Your task to perform on an android device: open app "Pluto TV - Live TV and Movies" (install if not already installed), go to login, and select forgot password Image 0: 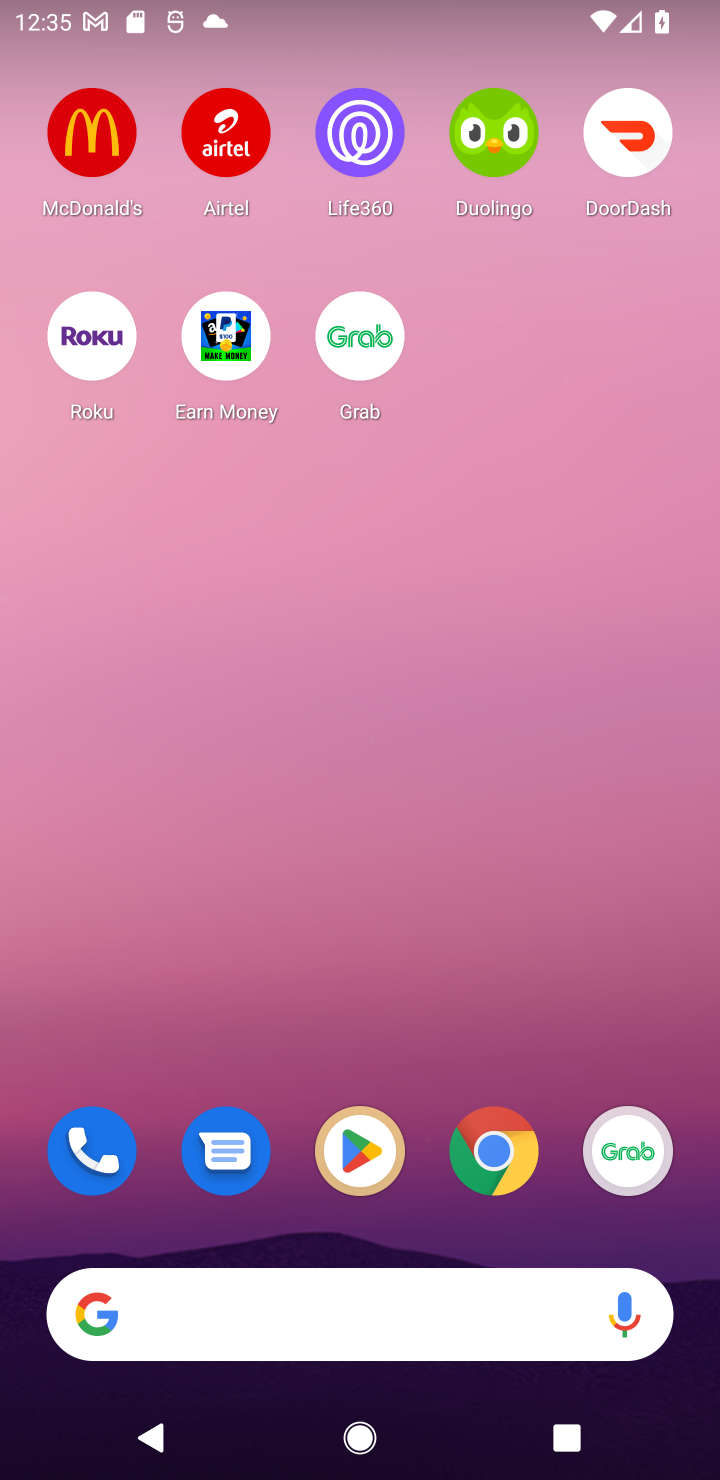
Step 0: press home button
Your task to perform on an android device: open app "Pluto TV - Live TV and Movies" (install if not already installed), go to login, and select forgot password Image 1: 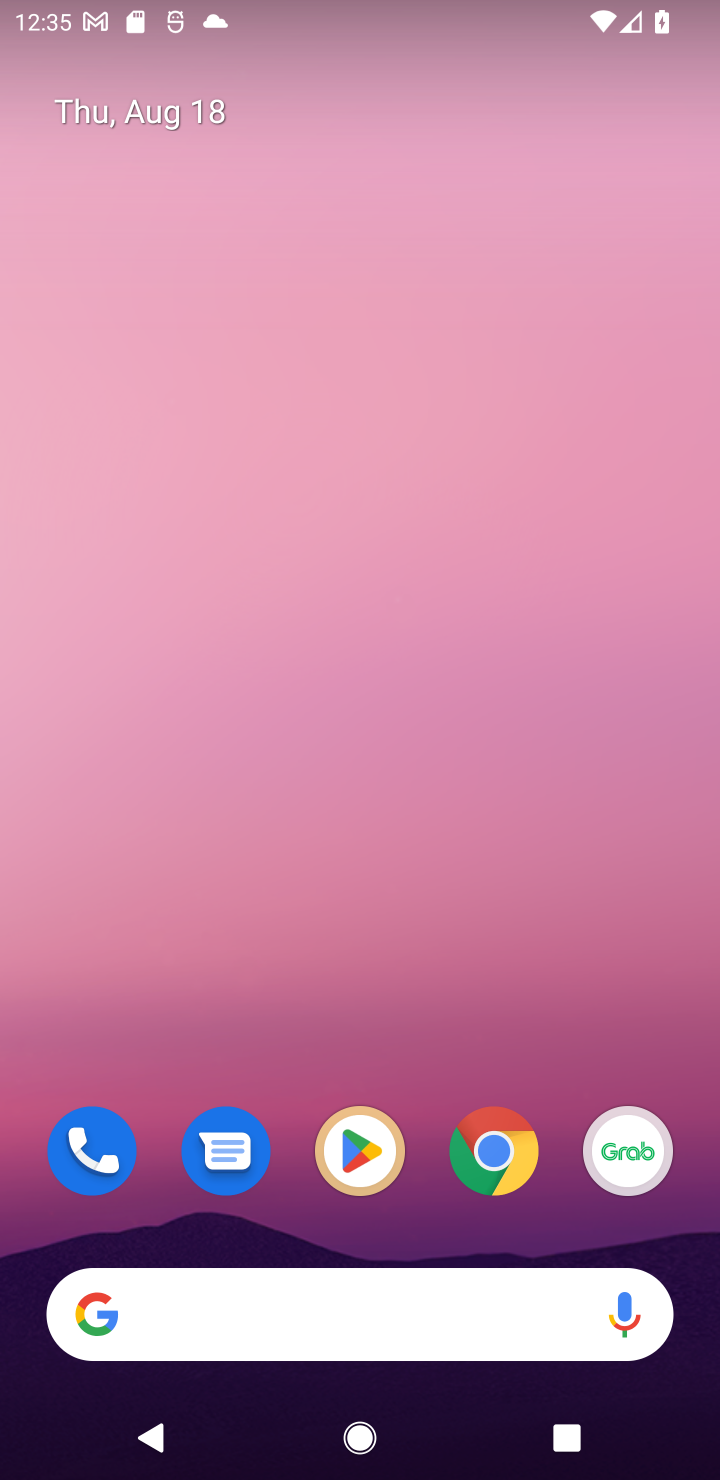
Step 1: click (352, 1152)
Your task to perform on an android device: open app "Pluto TV - Live TV and Movies" (install if not already installed), go to login, and select forgot password Image 2: 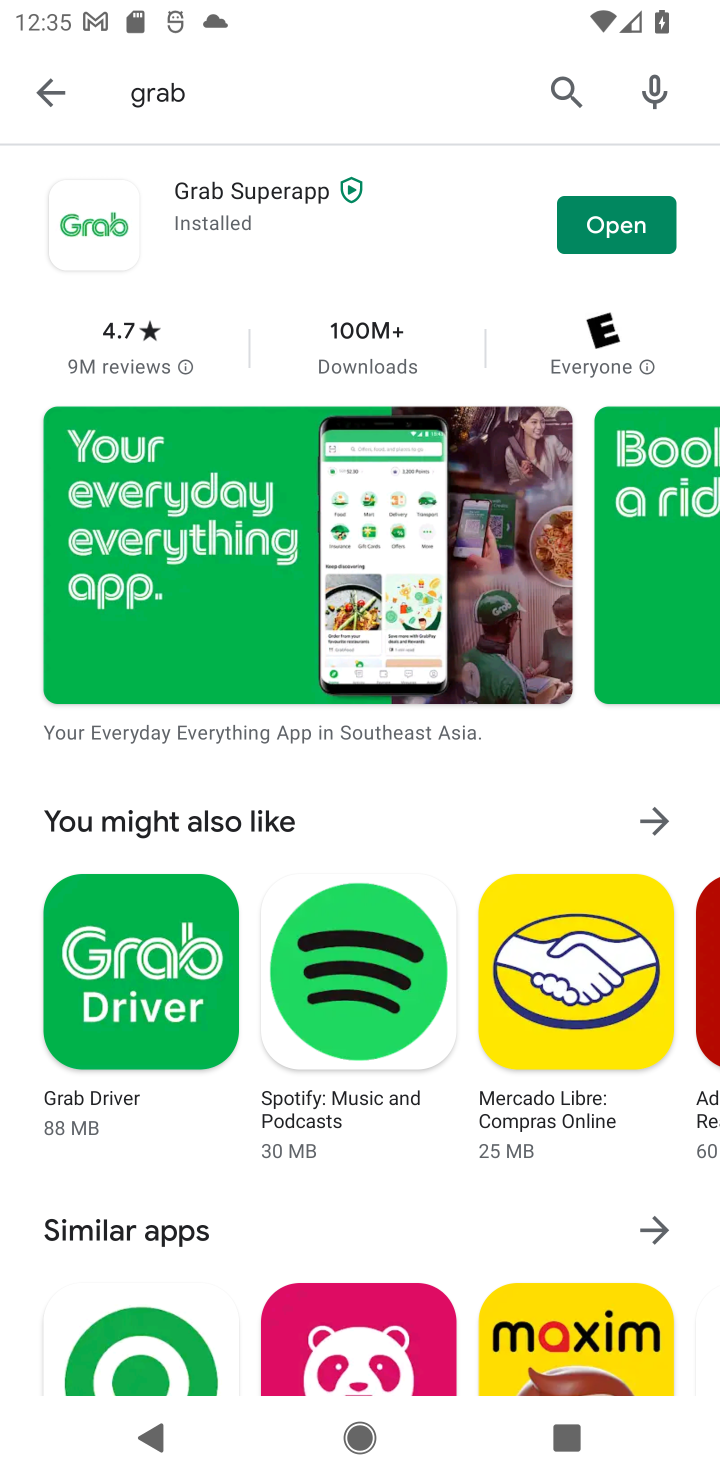
Step 2: click (43, 90)
Your task to perform on an android device: open app "Pluto TV - Live TV and Movies" (install if not already installed), go to login, and select forgot password Image 3: 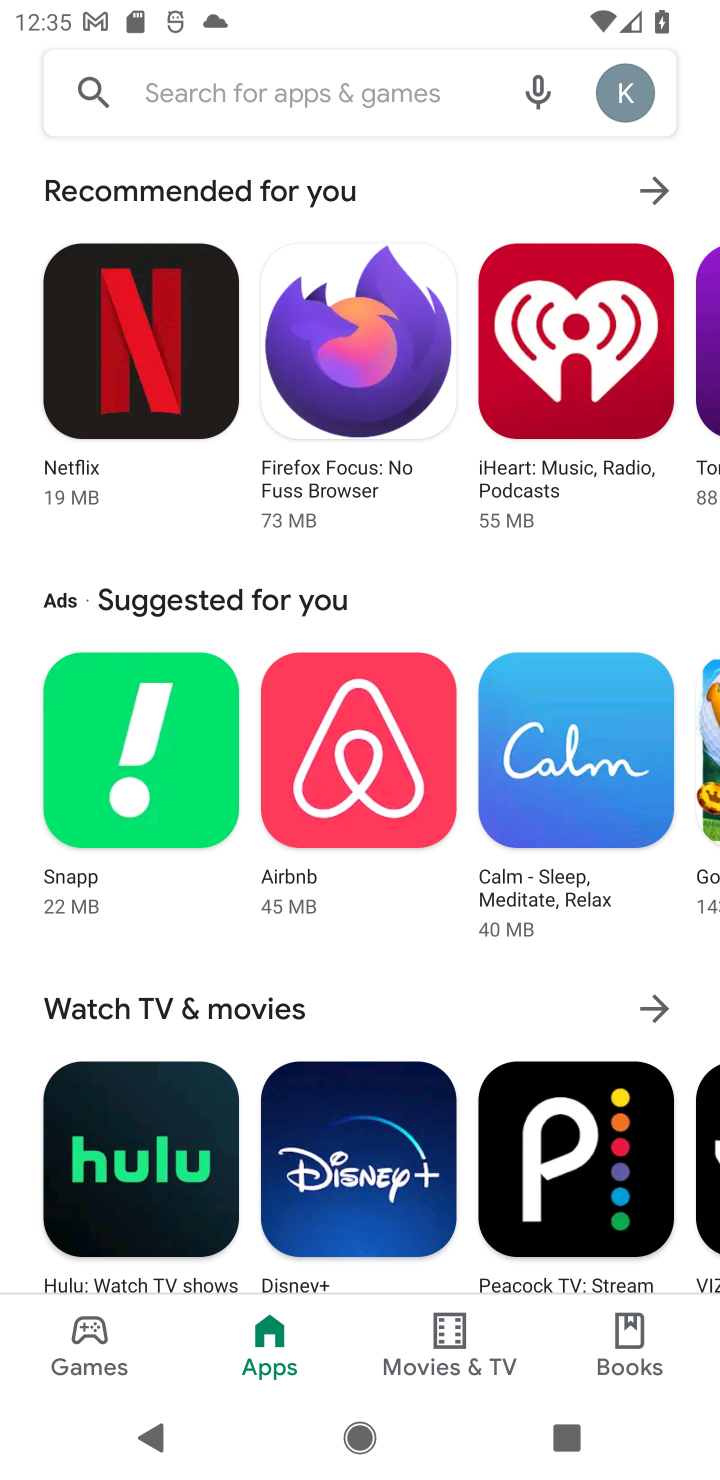
Step 3: click (217, 85)
Your task to perform on an android device: open app "Pluto TV - Live TV and Movies" (install if not already installed), go to login, and select forgot password Image 4: 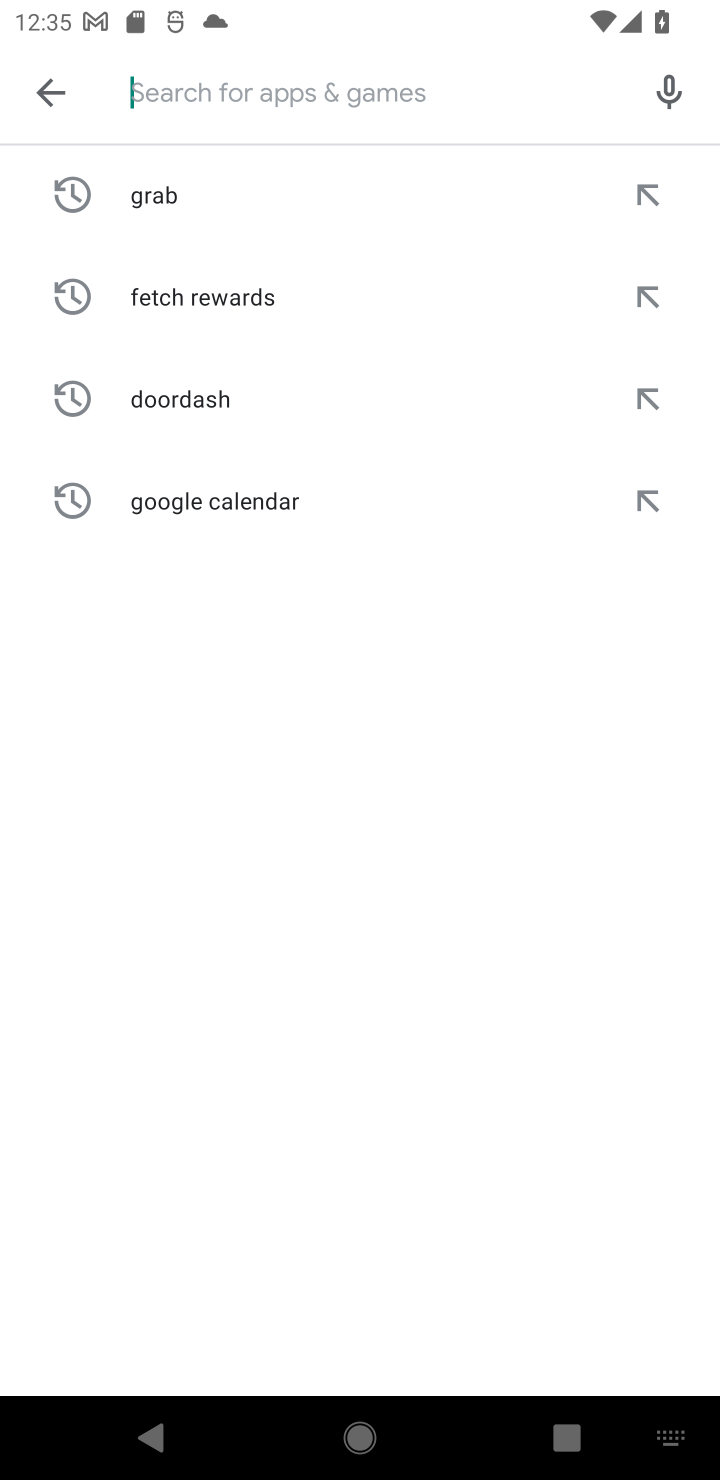
Step 4: type "Pluto TV - Live TV and Movies"
Your task to perform on an android device: open app "Pluto TV - Live TV and Movies" (install if not already installed), go to login, and select forgot password Image 5: 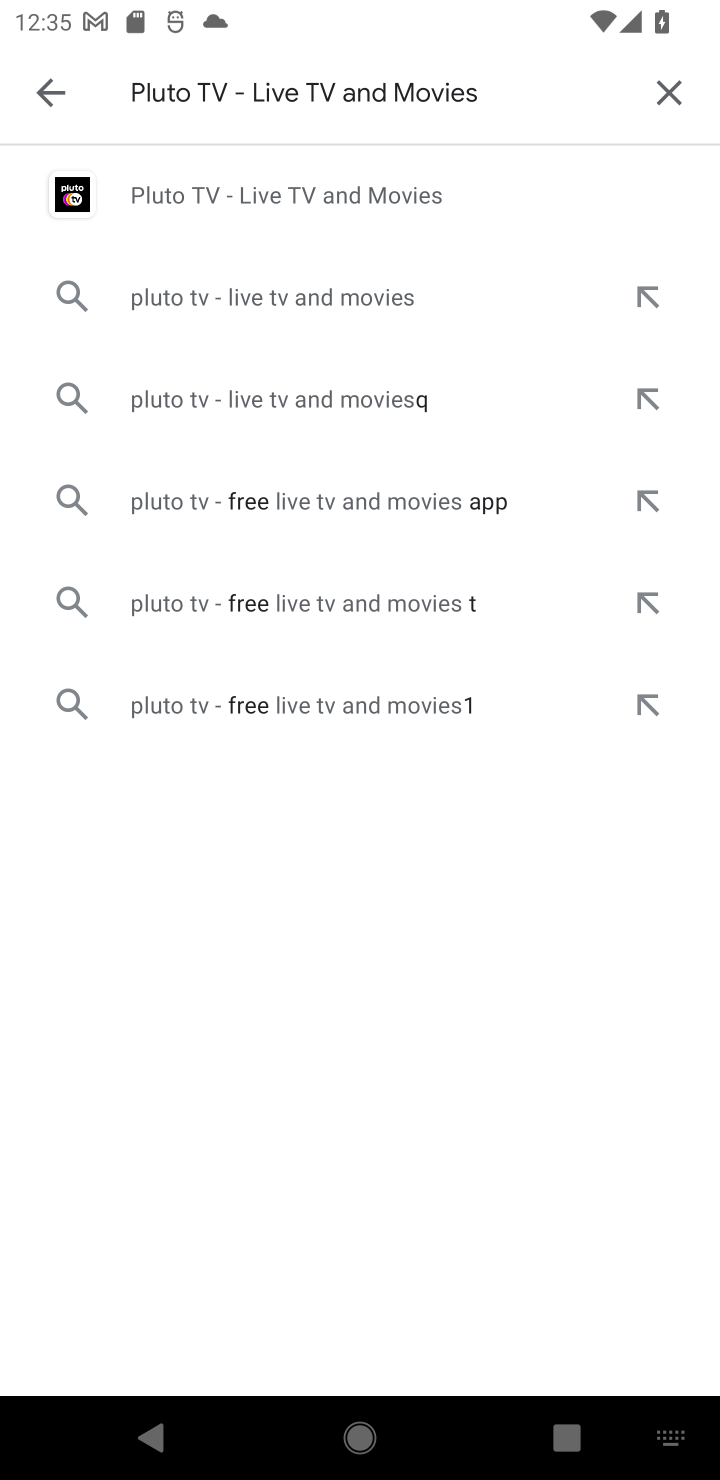
Step 5: click (370, 214)
Your task to perform on an android device: open app "Pluto TV - Live TV and Movies" (install if not already installed), go to login, and select forgot password Image 6: 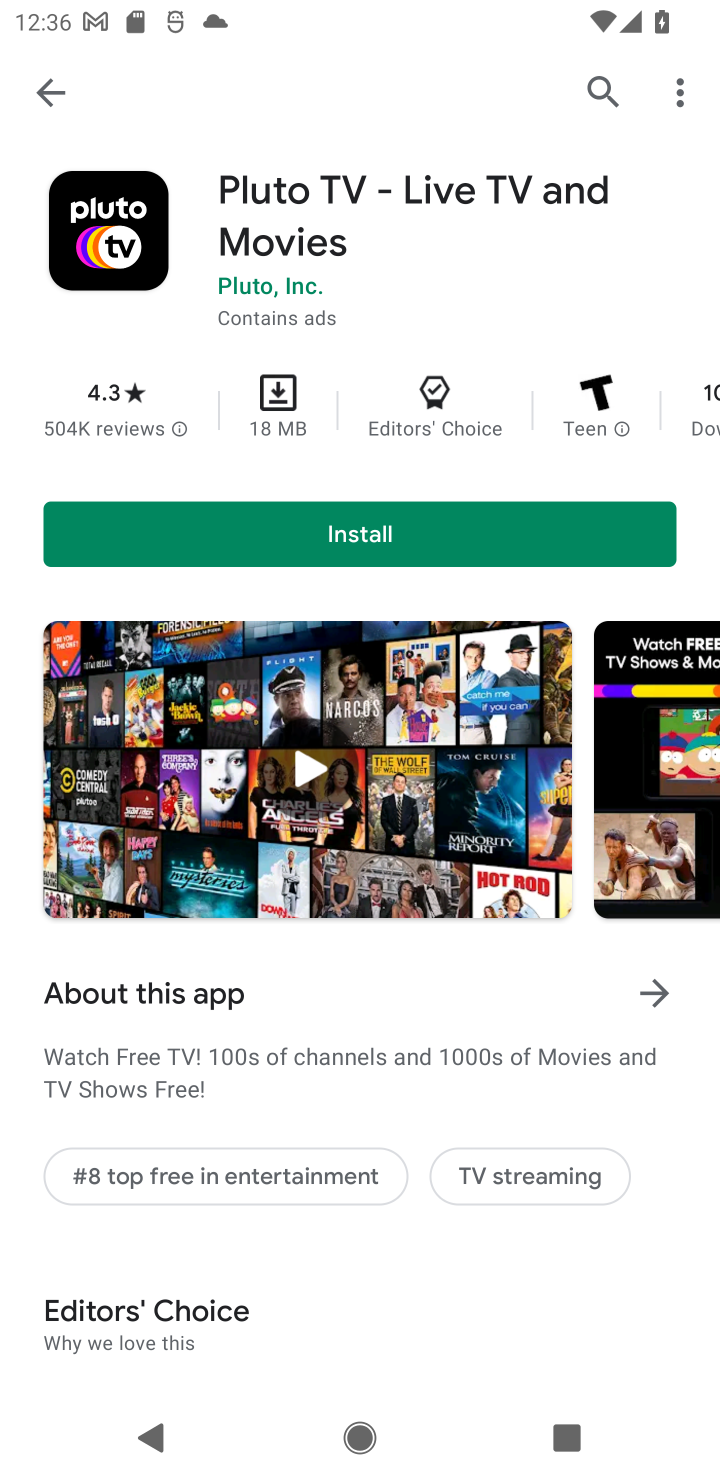
Step 6: click (340, 529)
Your task to perform on an android device: open app "Pluto TV - Live TV and Movies" (install if not already installed), go to login, and select forgot password Image 7: 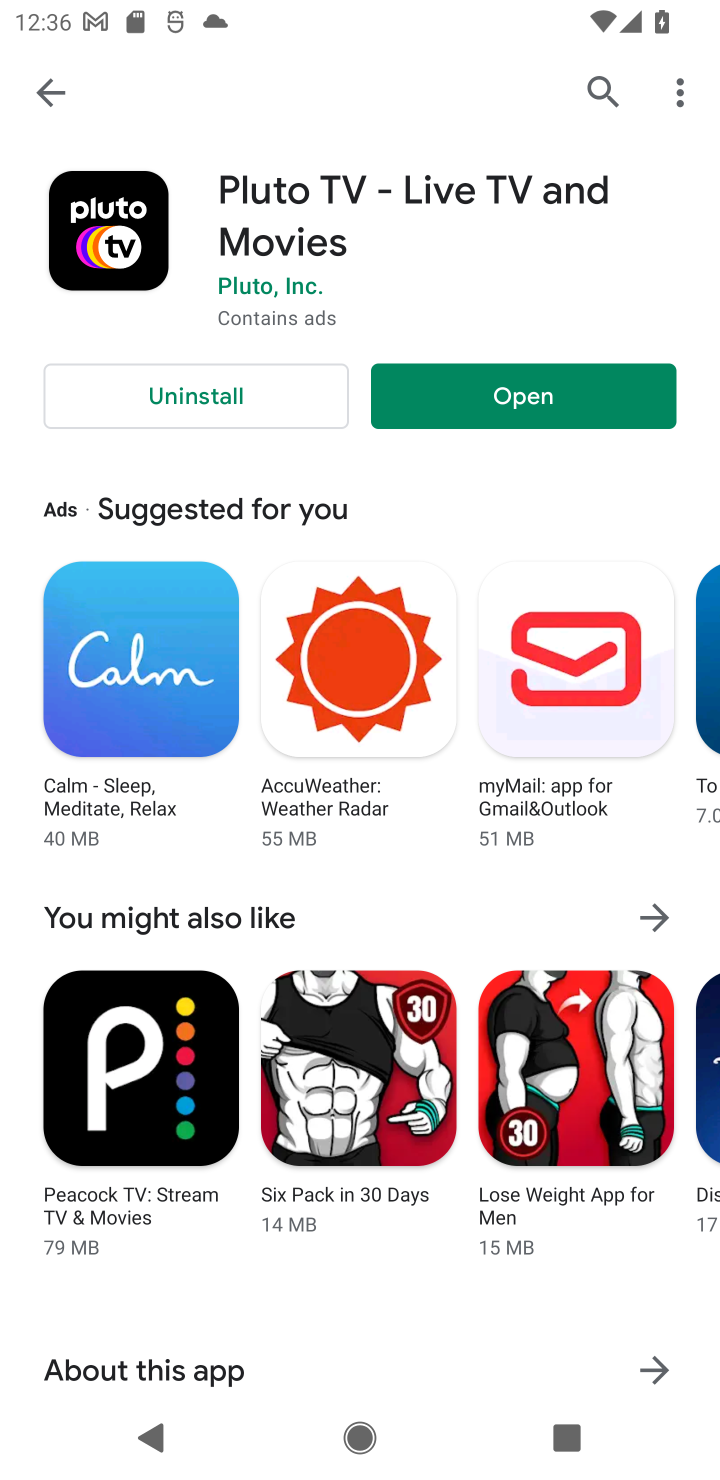
Step 7: click (527, 382)
Your task to perform on an android device: open app "Pluto TV - Live TV and Movies" (install if not already installed), go to login, and select forgot password Image 8: 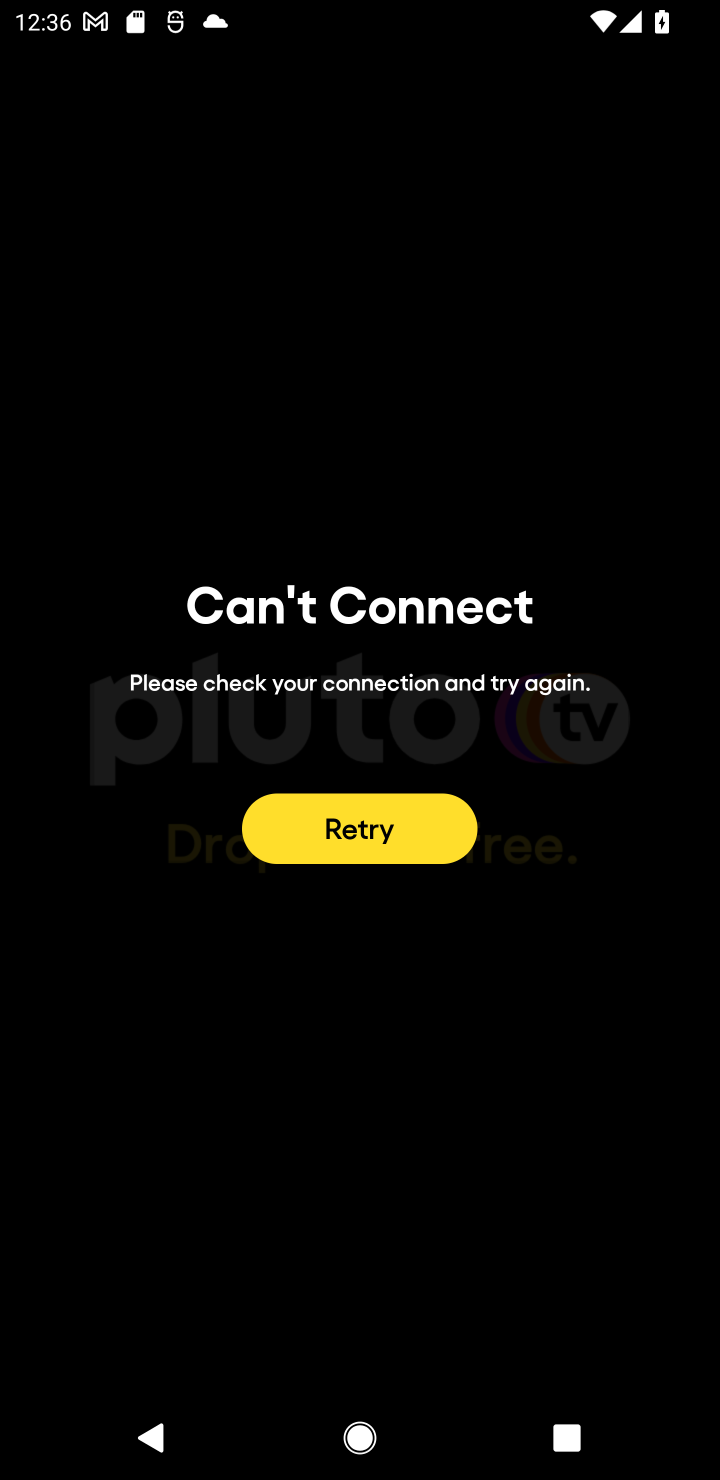
Step 8: click (382, 823)
Your task to perform on an android device: open app "Pluto TV - Live TV and Movies" (install if not already installed), go to login, and select forgot password Image 9: 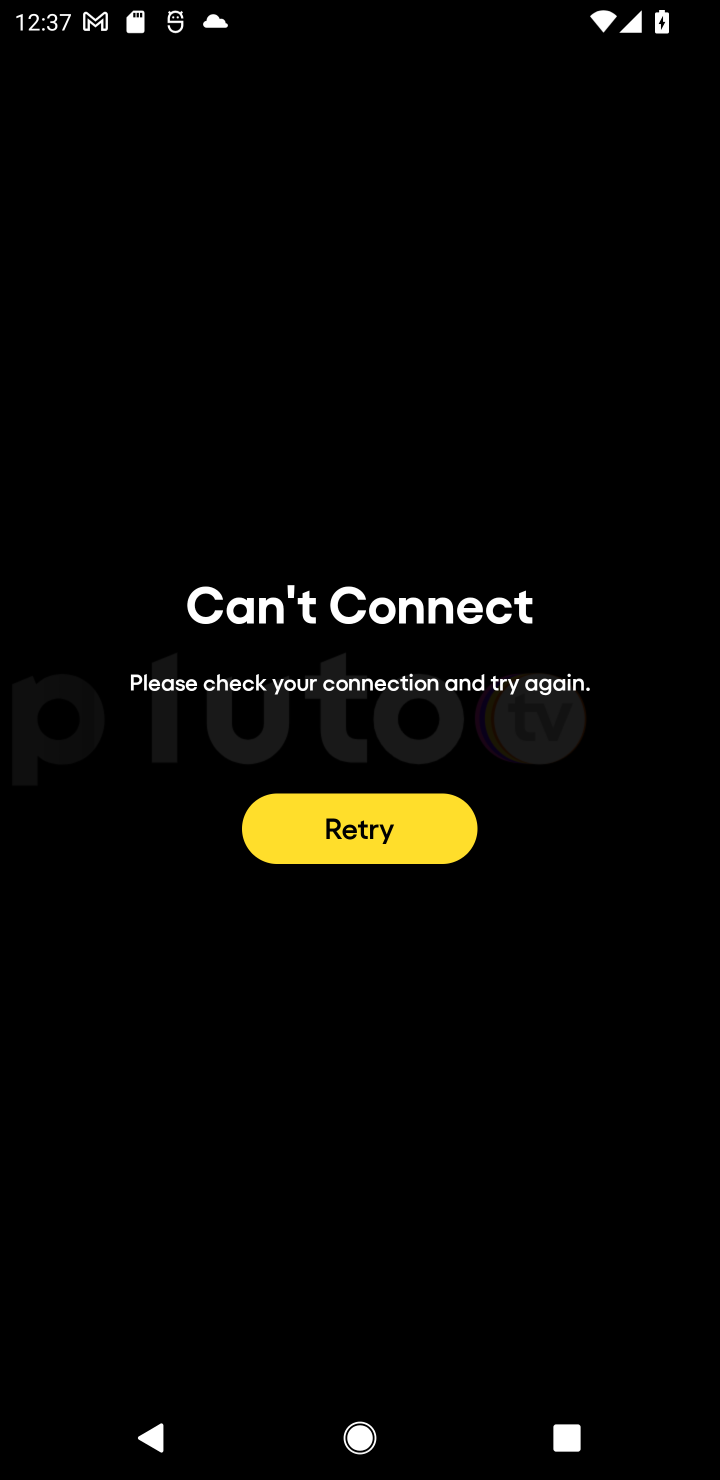
Step 9: task complete